Your task to perform on an android device: Do I have any events tomorrow? Image 0: 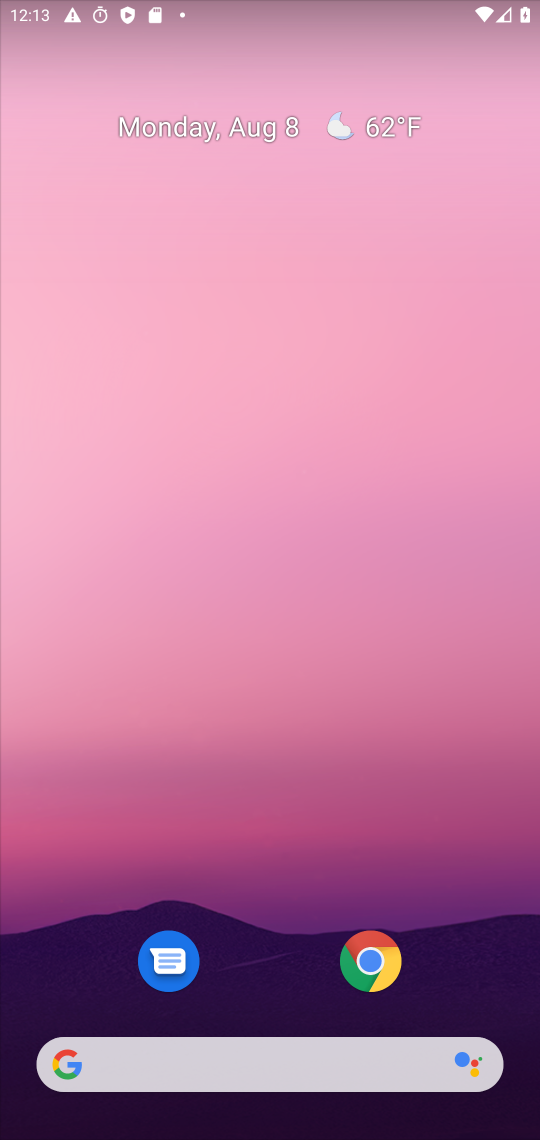
Step 0: drag from (262, 1071) to (151, 765)
Your task to perform on an android device: Do I have any events tomorrow? Image 1: 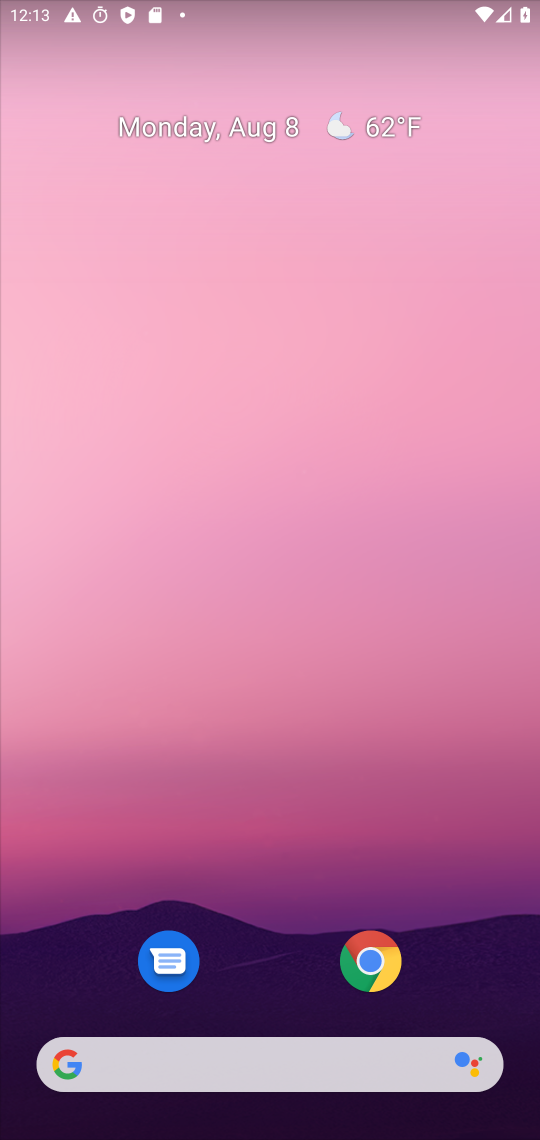
Step 1: drag from (362, 1067) to (395, 243)
Your task to perform on an android device: Do I have any events tomorrow? Image 2: 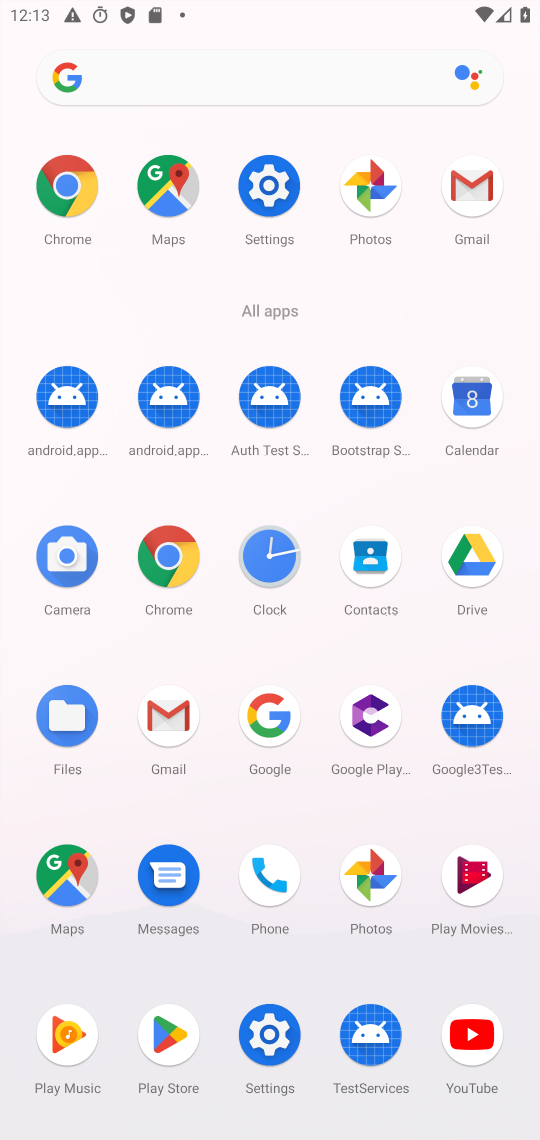
Step 2: click (484, 390)
Your task to perform on an android device: Do I have any events tomorrow? Image 3: 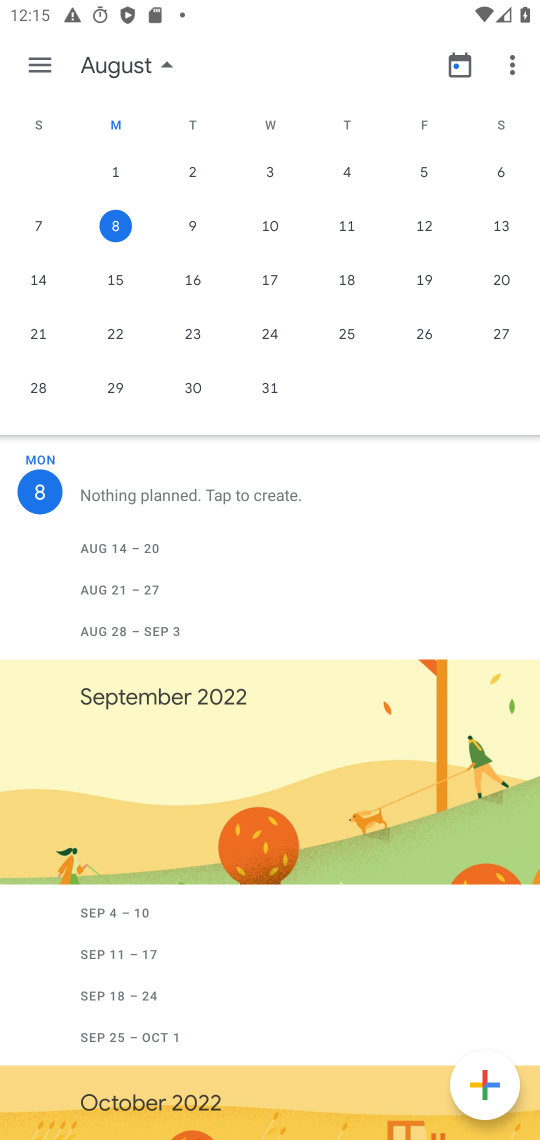
Step 3: click (197, 220)
Your task to perform on an android device: Do I have any events tomorrow? Image 4: 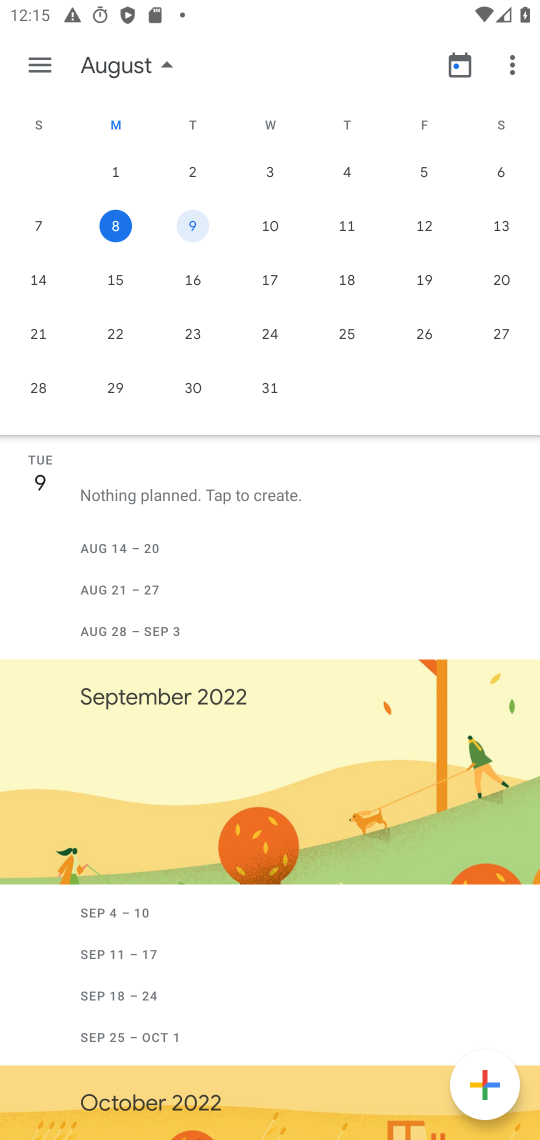
Step 4: task complete